Your task to perform on an android device: empty trash in the gmail app Image 0: 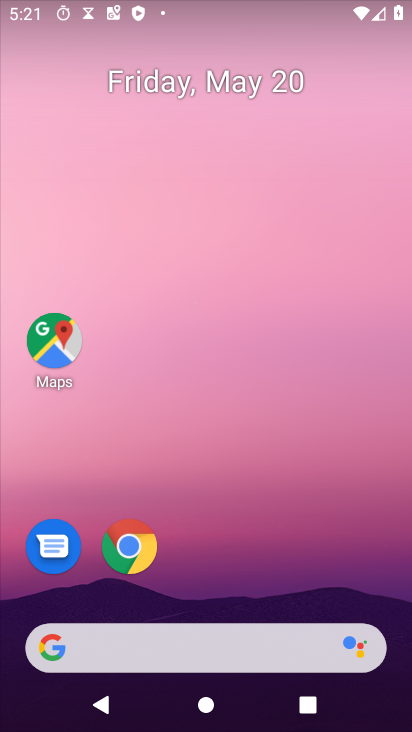
Step 0: drag from (244, 575) to (193, 121)
Your task to perform on an android device: empty trash in the gmail app Image 1: 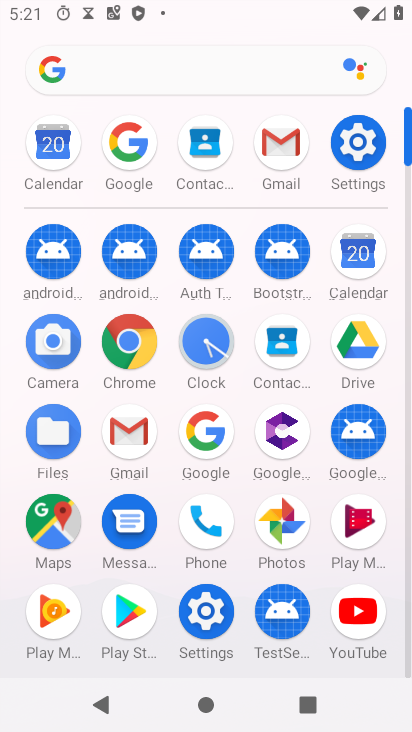
Step 1: click (279, 142)
Your task to perform on an android device: empty trash in the gmail app Image 2: 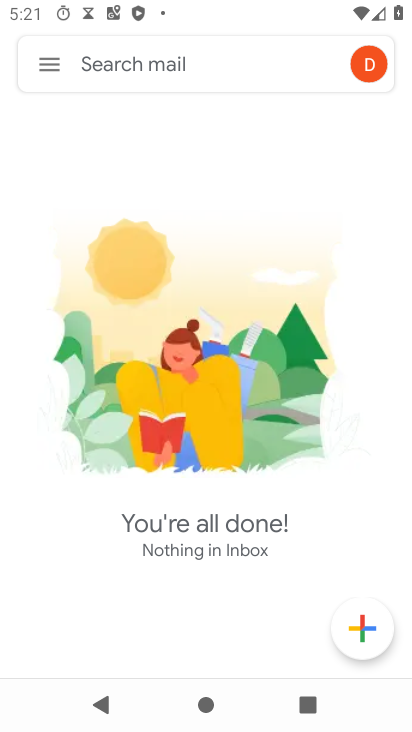
Step 2: click (53, 60)
Your task to perform on an android device: empty trash in the gmail app Image 3: 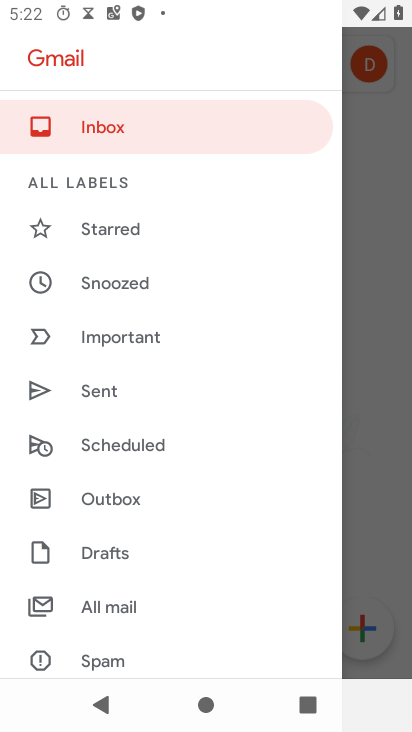
Step 3: drag from (127, 473) to (150, 379)
Your task to perform on an android device: empty trash in the gmail app Image 4: 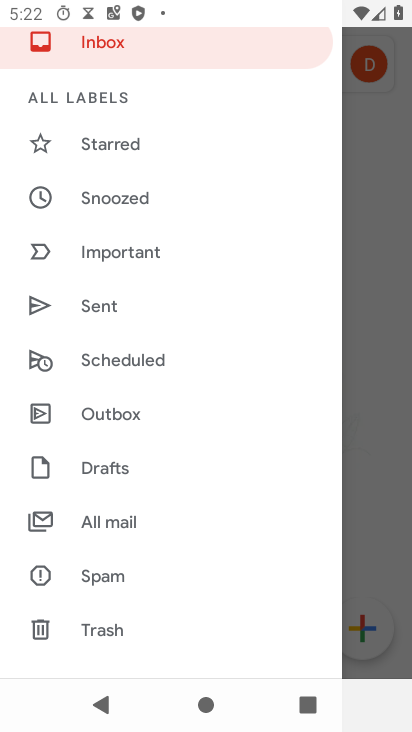
Step 4: drag from (104, 489) to (163, 391)
Your task to perform on an android device: empty trash in the gmail app Image 5: 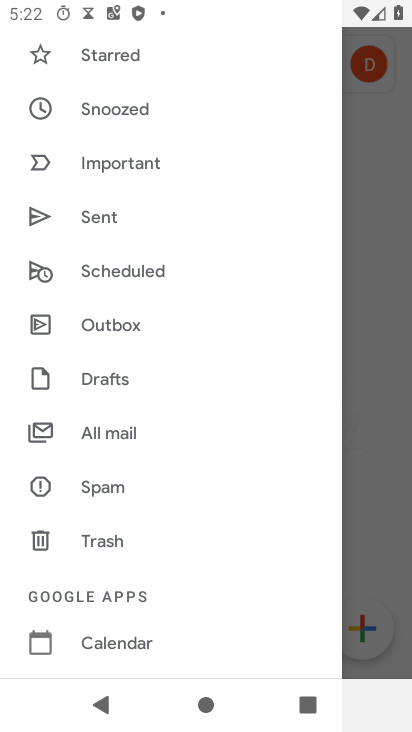
Step 5: click (111, 536)
Your task to perform on an android device: empty trash in the gmail app Image 6: 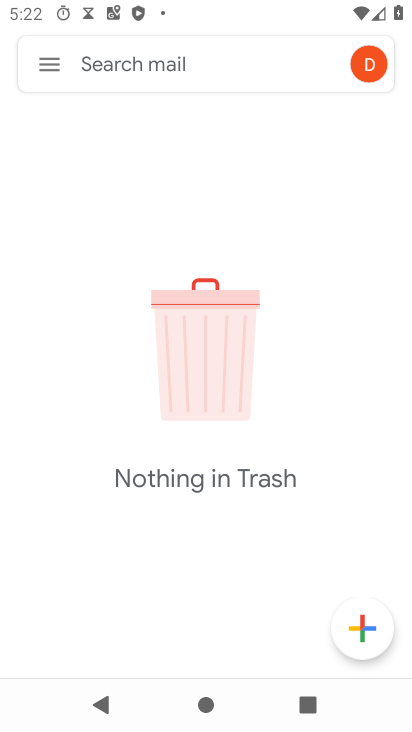
Step 6: task complete